Your task to perform on an android device: open wifi settings Image 0: 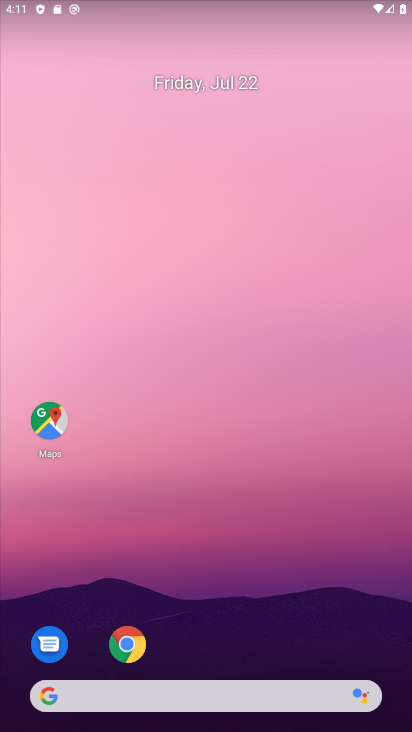
Step 0: drag from (189, 660) to (184, 155)
Your task to perform on an android device: open wifi settings Image 1: 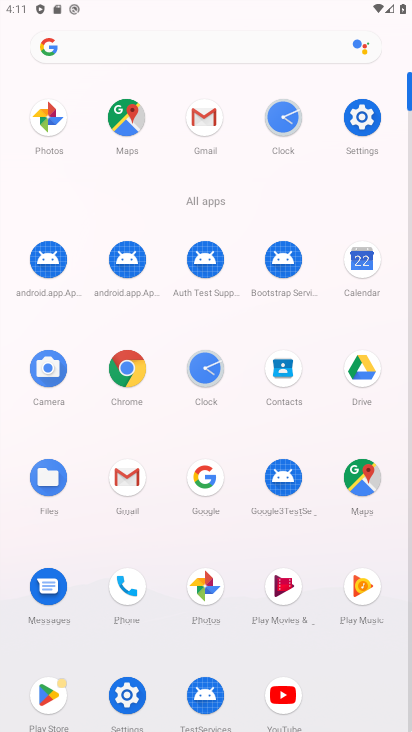
Step 1: click (366, 117)
Your task to perform on an android device: open wifi settings Image 2: 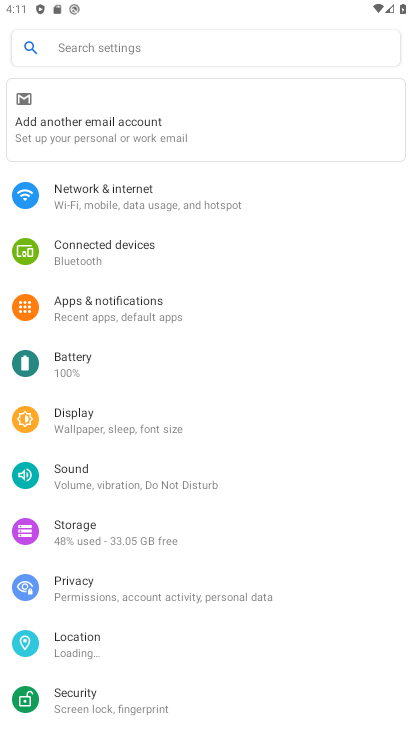
Step 2: drag from (115, 137) to (161, 31)
Your task to perform on an android device: open wifi settings Image 3: 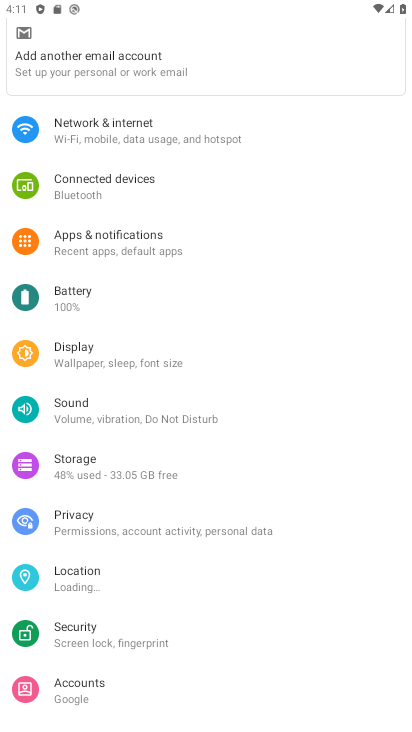
Step 3: click (139, 121)
Your task to perform on an android device: open wifi settings Image 4: 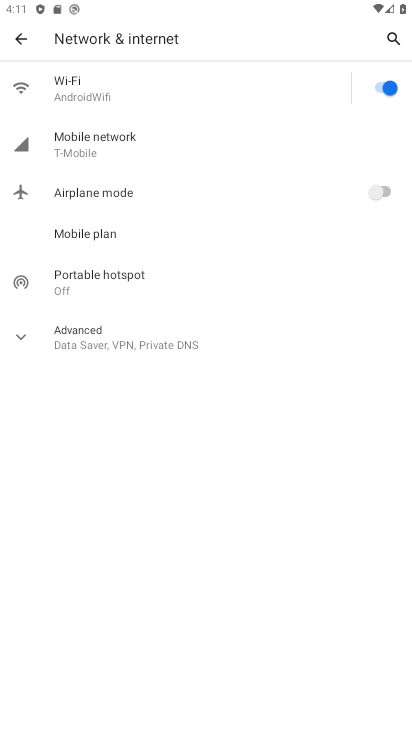
Step 4: click (142, 78)
Your task to perform on an android device: open wifi settings Image 5: 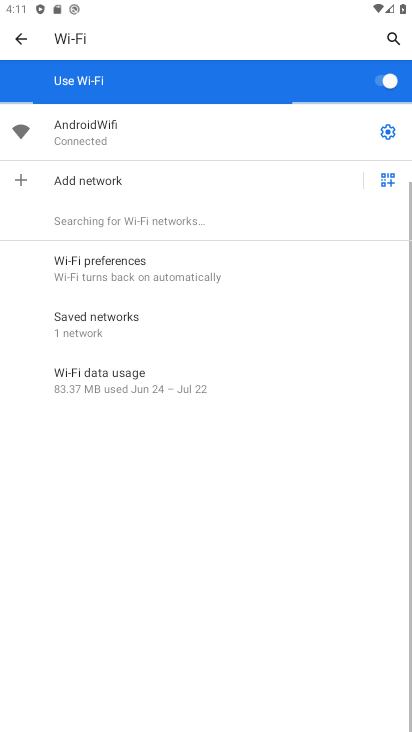
Step 5: click (171, 126)
Your task to perform on an android device: open wifi settings Image 6: 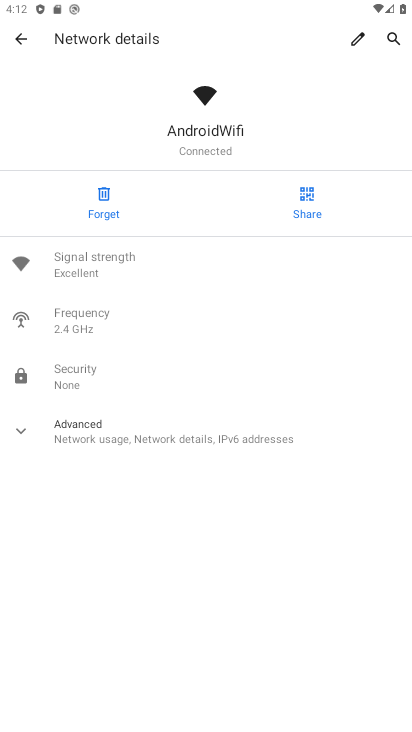
Step 6: task complete